Your task to perform on an android device: open app "File Manager" Image 0: 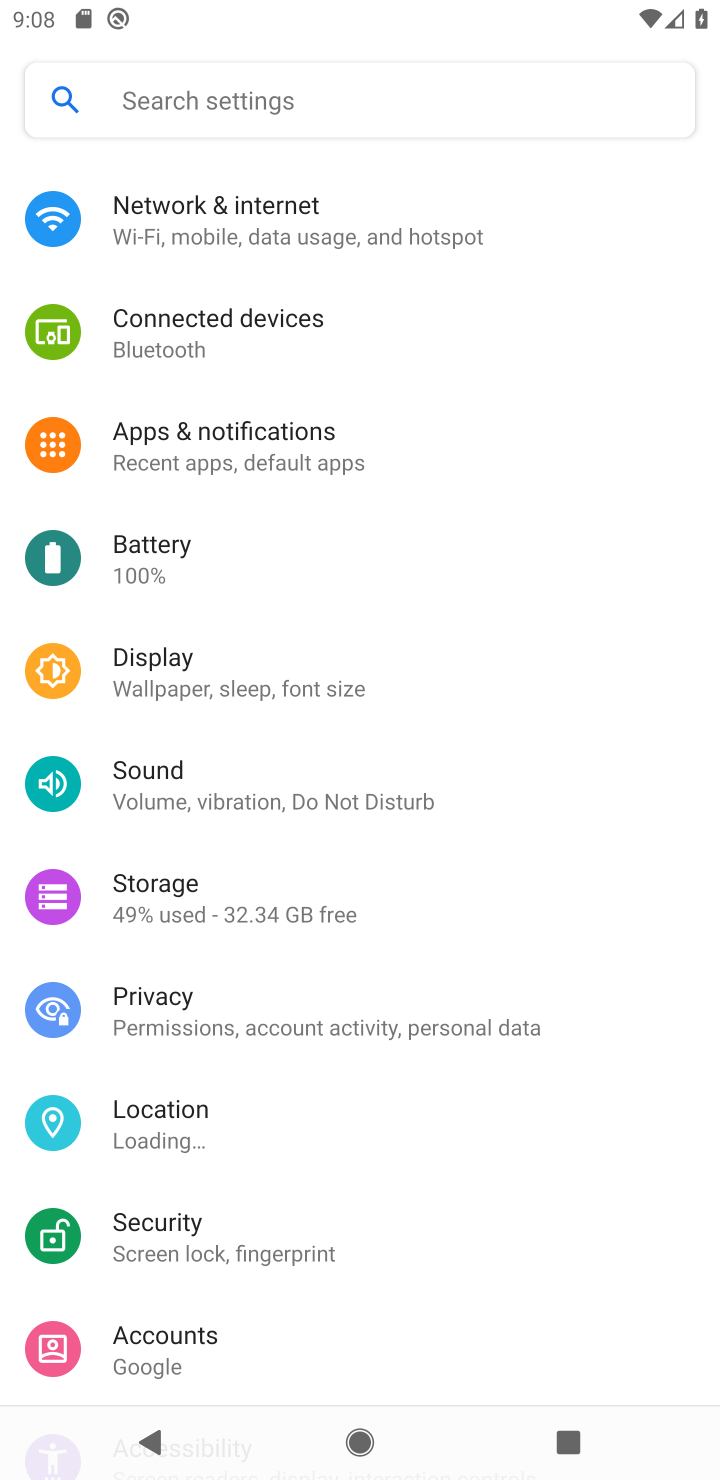
Step 0: press home button
Your task to perform on an android device: open app "File Manager" Image 1: 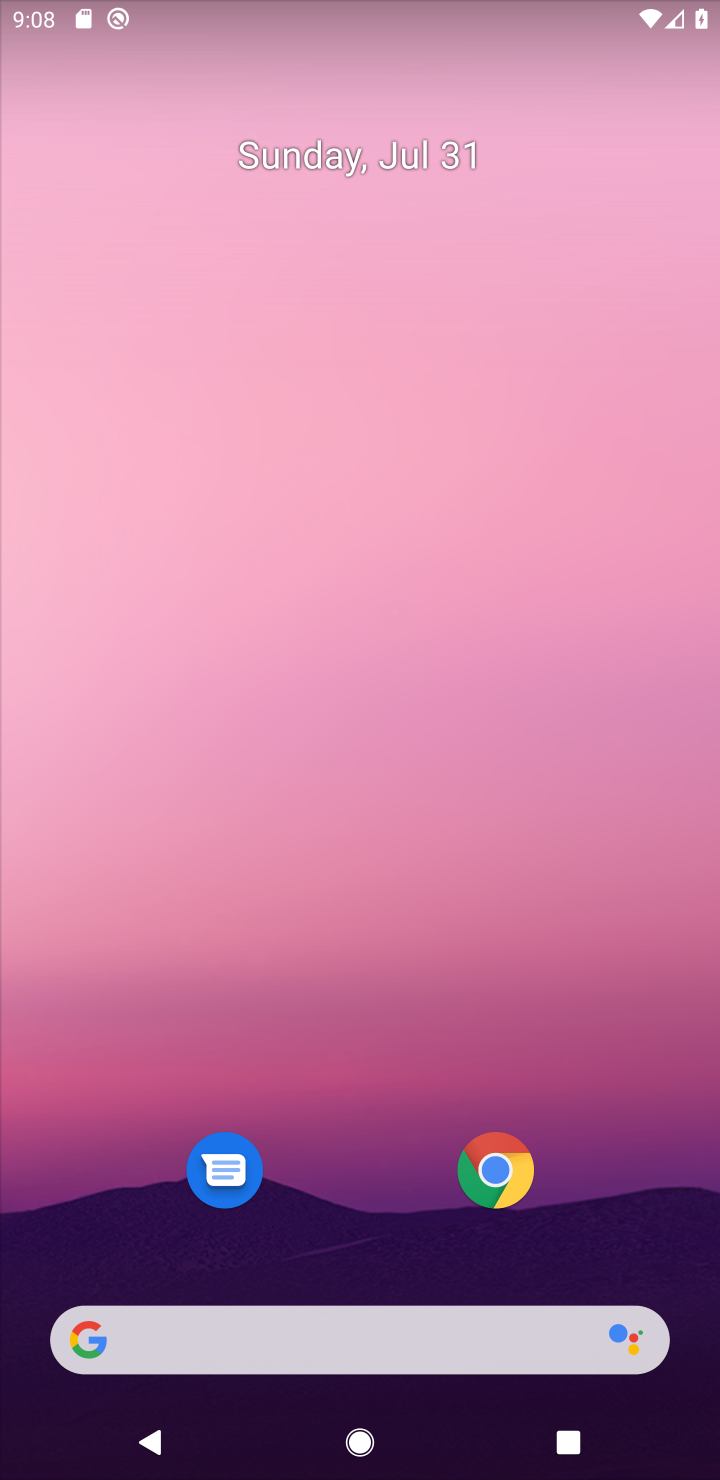
Step 1: drag from (568, 963) to (287, 39)
Your task to perform on an android device: open app "File Manager" Image 2: 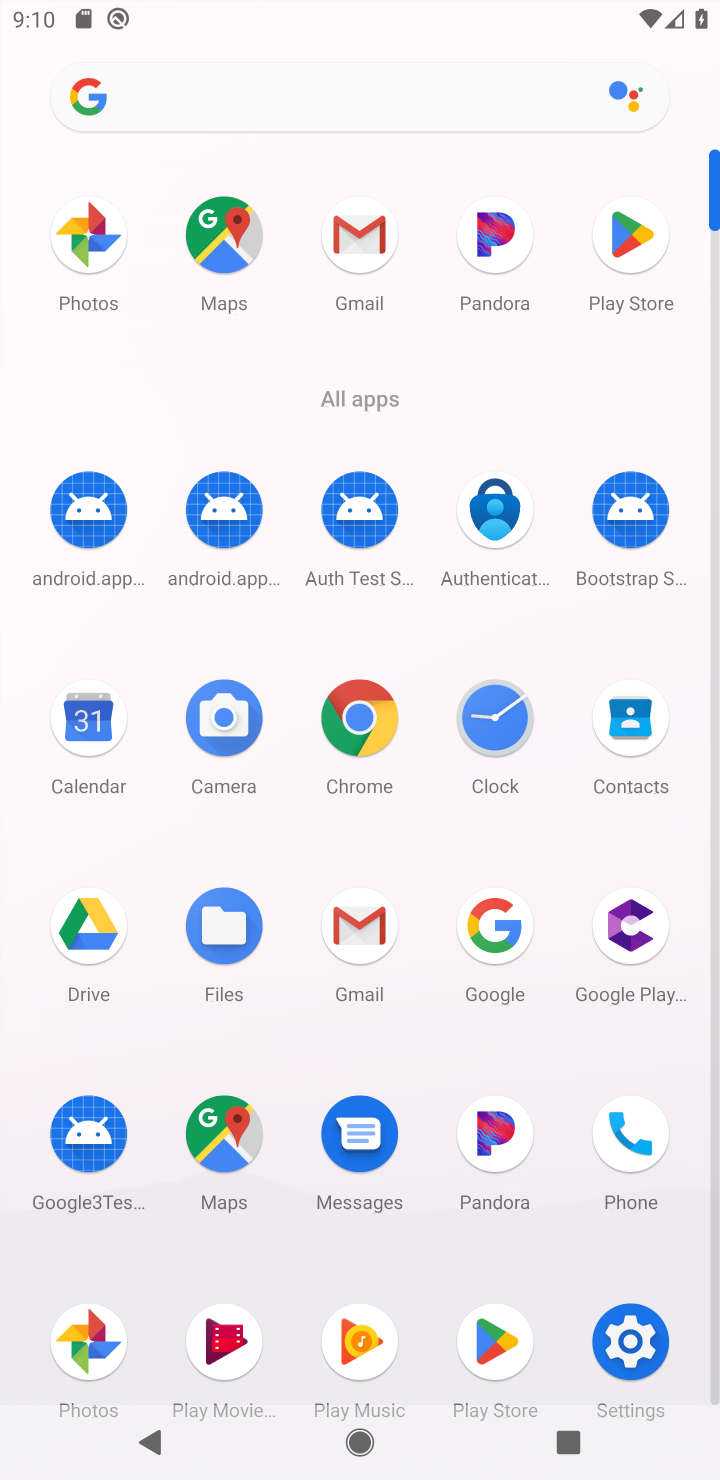
Step 2: click (634, 251)
Your task to perform on an android device: open app "File Manager" Image 3: 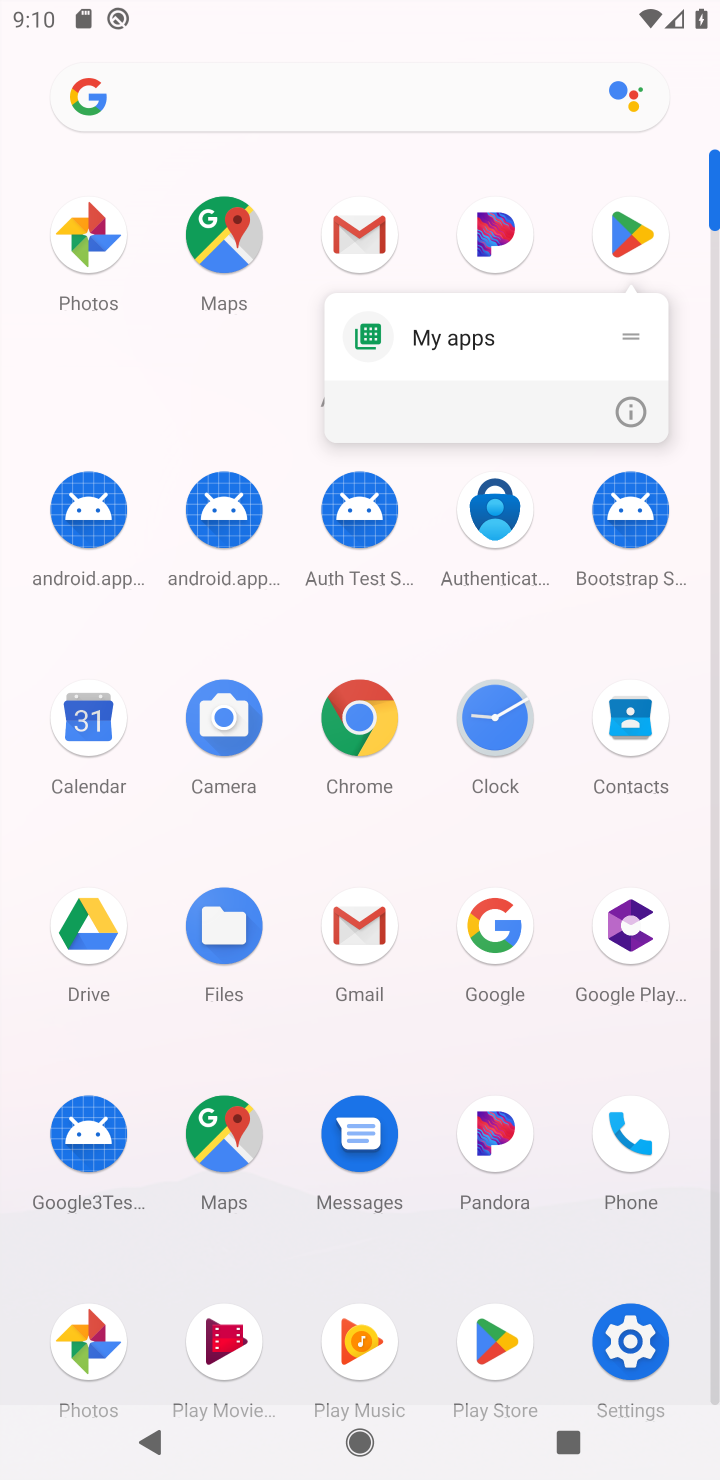
Step 3: click (611, 243)
Your task to perform on an android device: open app "File Manager" Image 4: 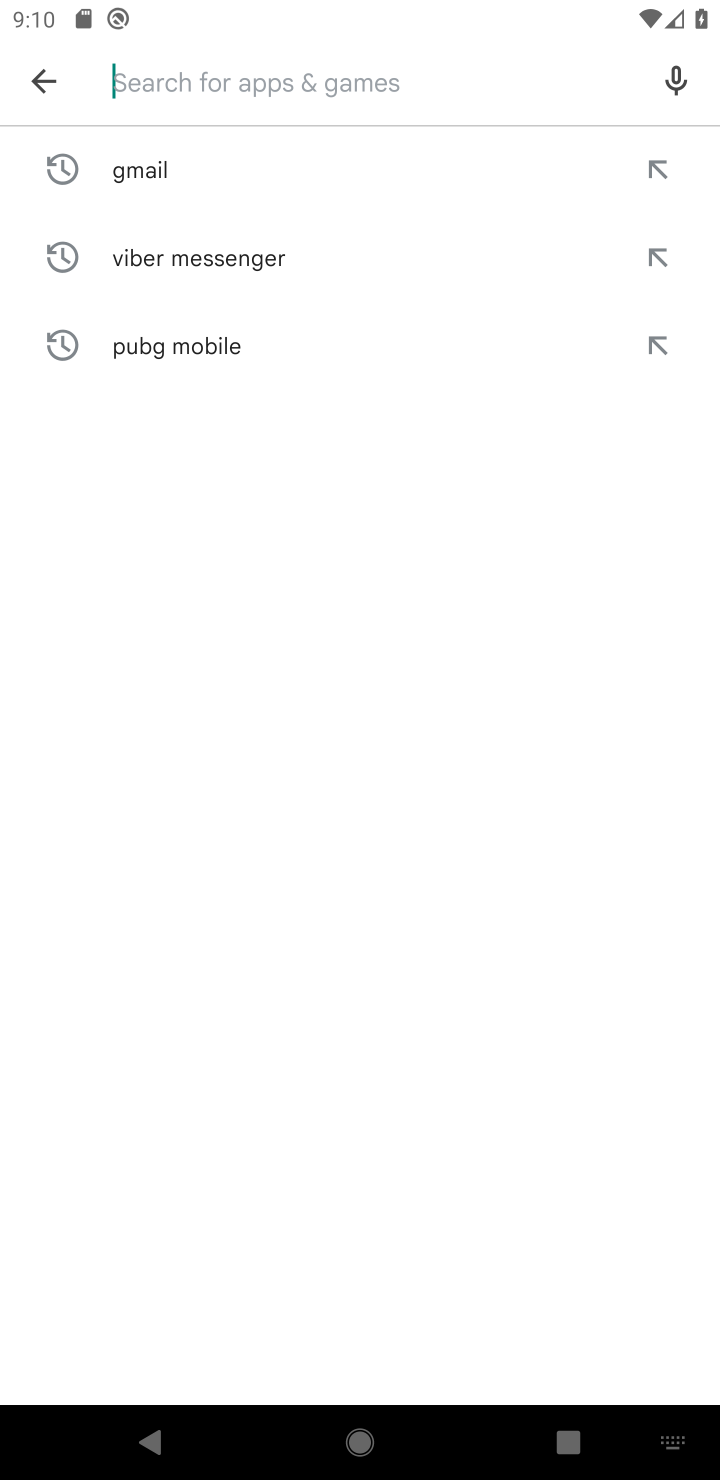
Step 4: type "File Manager"
Your task to perform on an android device: open app "File Manager" Image 5: 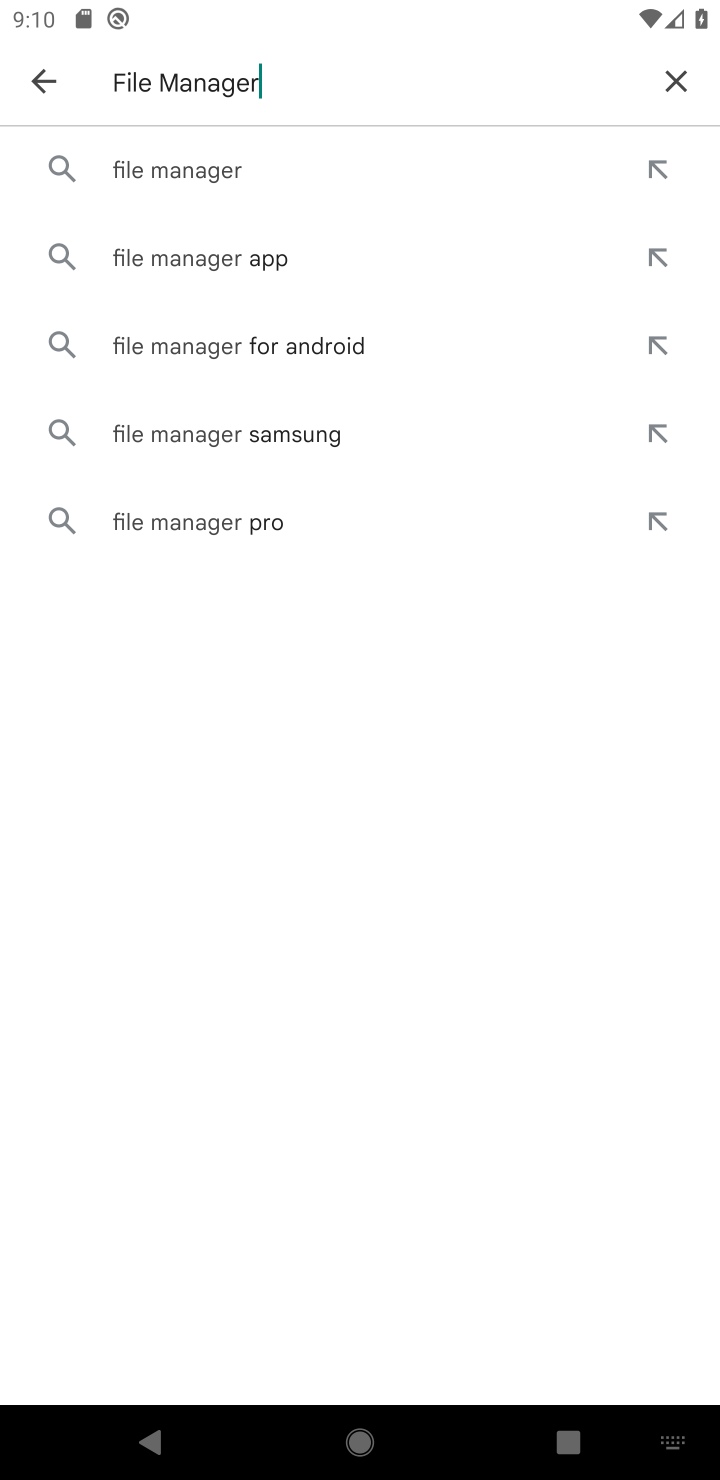
Step 5: click (179, 169)
Your task to perform on an android device: open app "File Manager" Image 6: 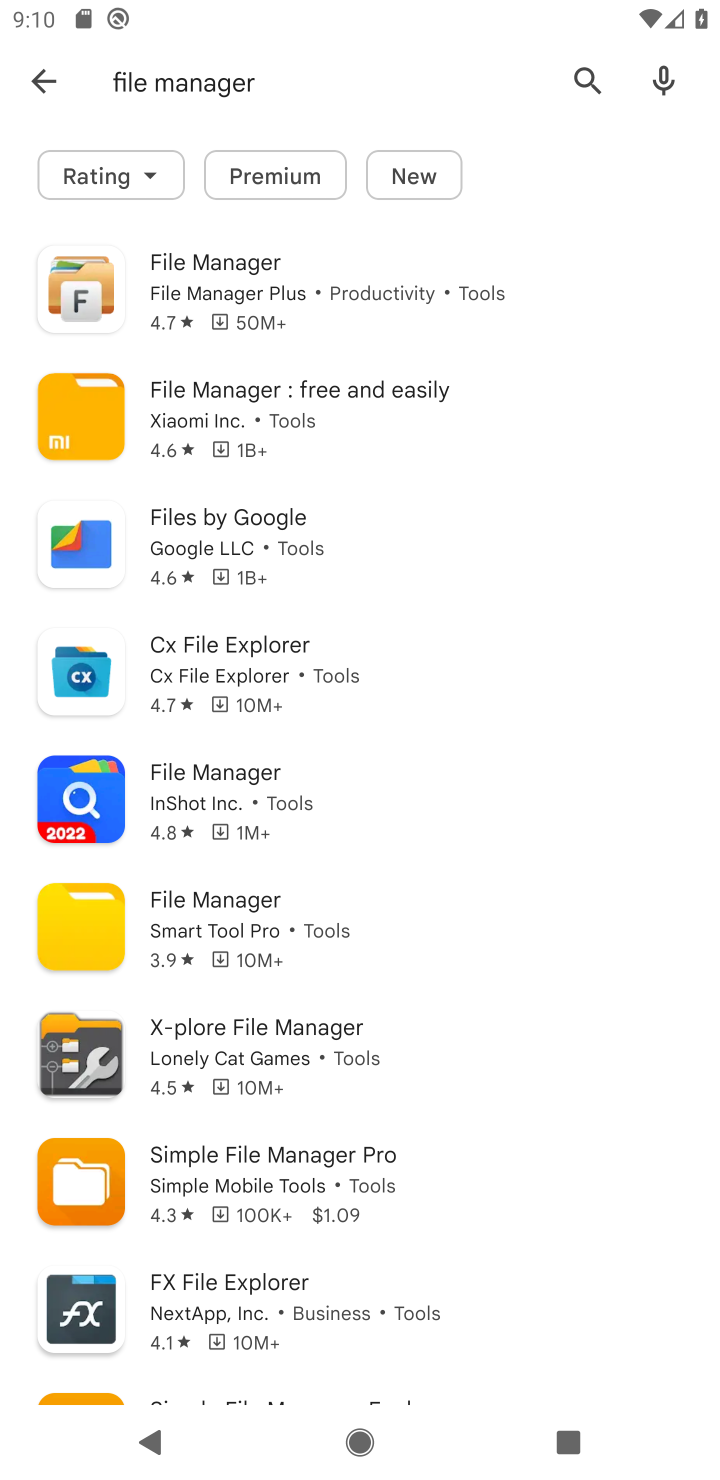
Step 6: task complete